Your task to perform on an android device: change the clock display to analog Image 0: 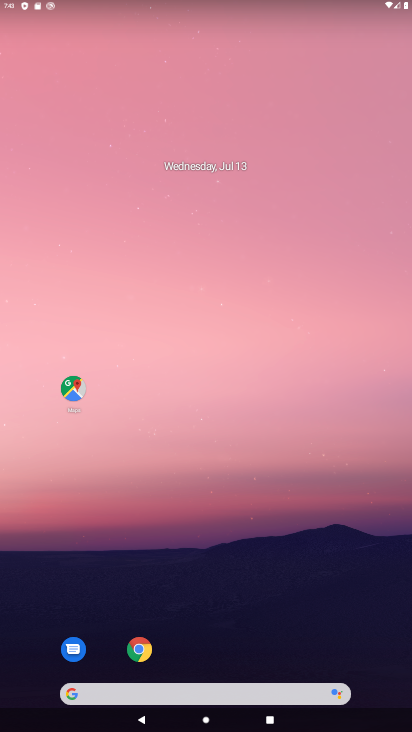
Step 0: drag from (358, 575) to (358, 287)
Your task to perform on an android device: change the clock display to analog Image 1: 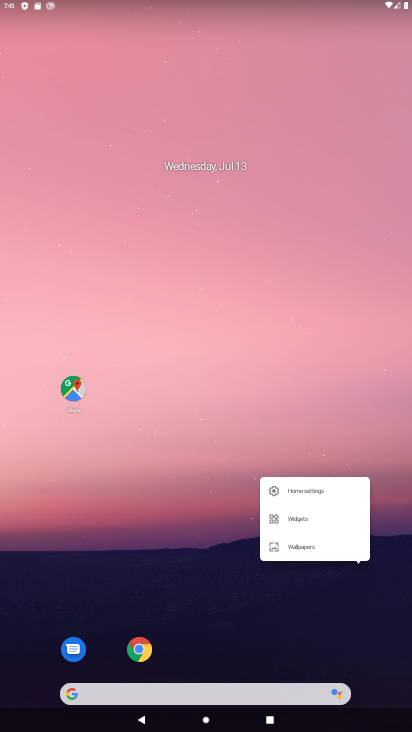
Step 1: drag from (155, 545) to (173, 145)
Your task to perform on an android device: change the clock display to analog Image 2: 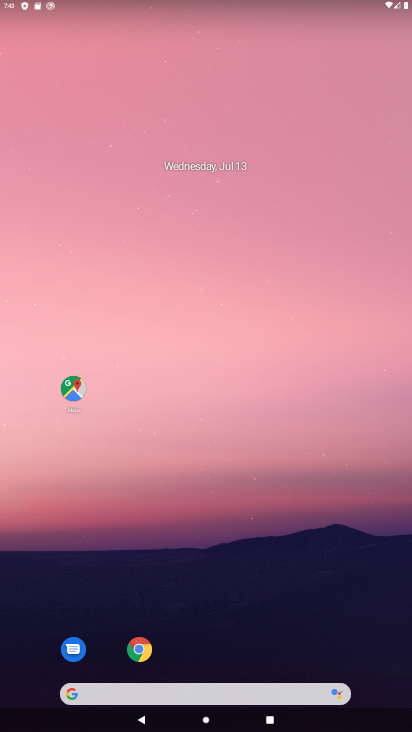
Step 2: drag from (308, 578) to (297, 181)
Your task to perform on an android device: change the clock display to analog Image 3: 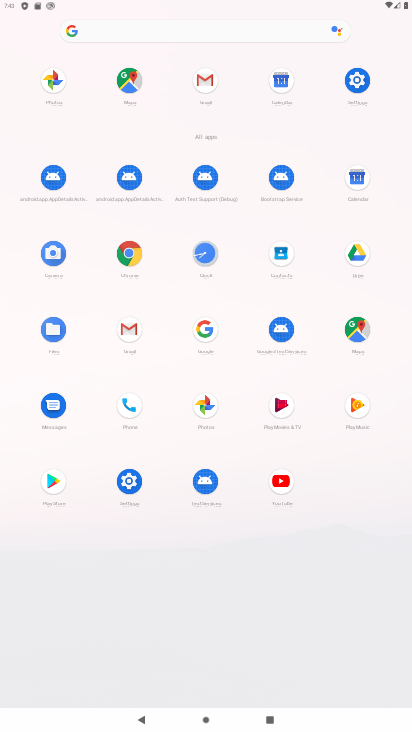
Step 3: click (209, 258)
Your task to perform on an android device: change the clock display to analog Image 4: 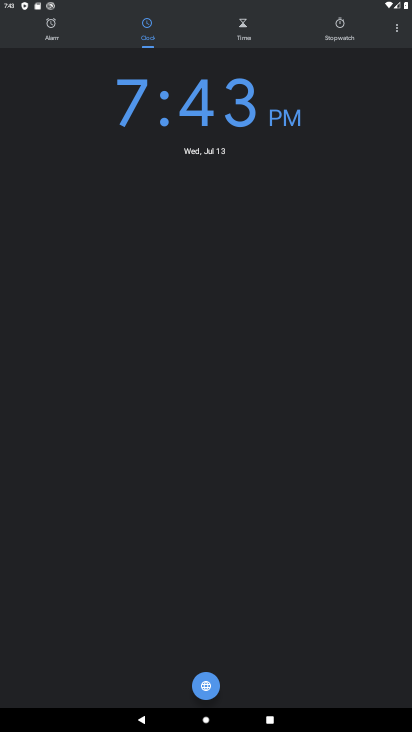
Step 4: click (399, 33)
Your task to perform on an android device: change the clock display to analog Image 5: 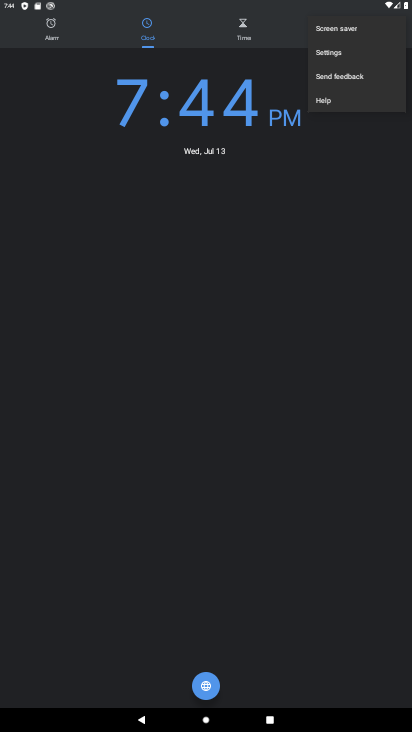
Step 5: click (346, 56)
Your task to perform on an android device: change the clock display to analog Image 6: 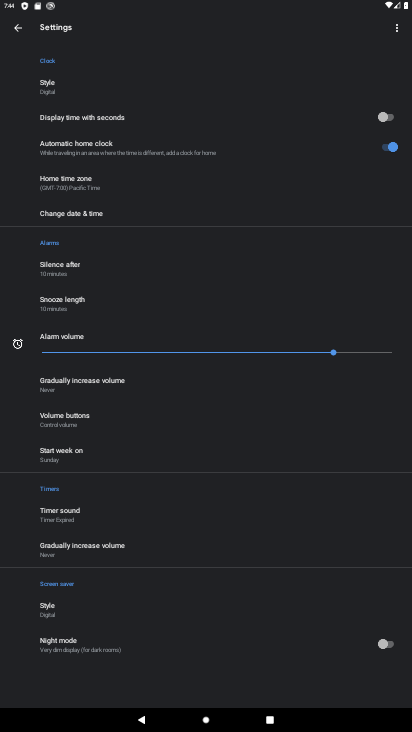
Step 6: click (222, 88)
Your task to perform on an android device: change the clock display to analog Image 7: 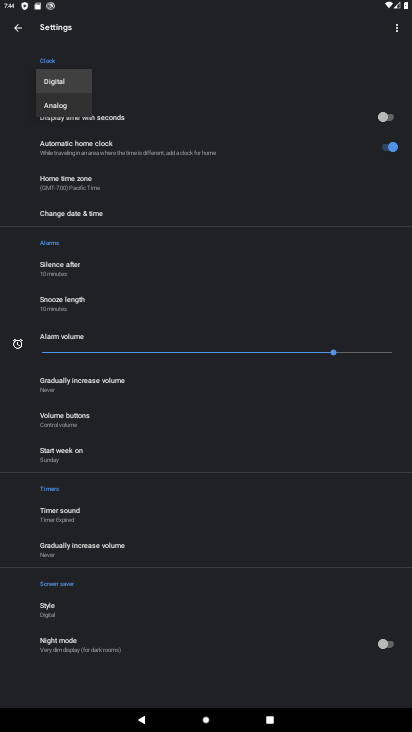
Step 7: click (76, 105)
Your task to perform on an android device: change the clock display to analog Image 8: 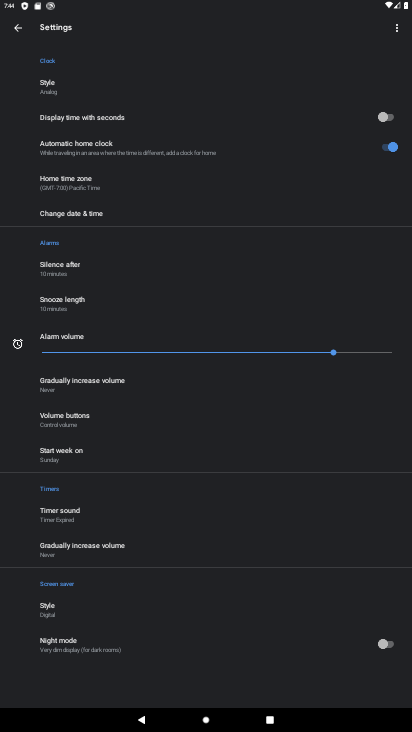
Step 8: task complete